Your task to perform on an android device: Open Yahoo.com Image 0: 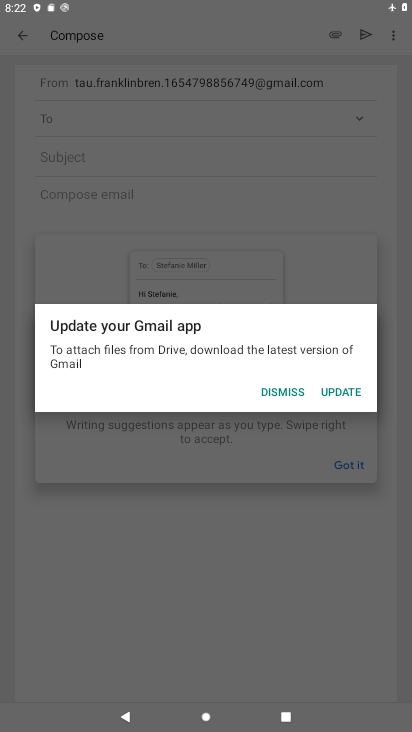
Step 0: press home button
Your task to perform on an android device: Open Yahoo.com Image 1: 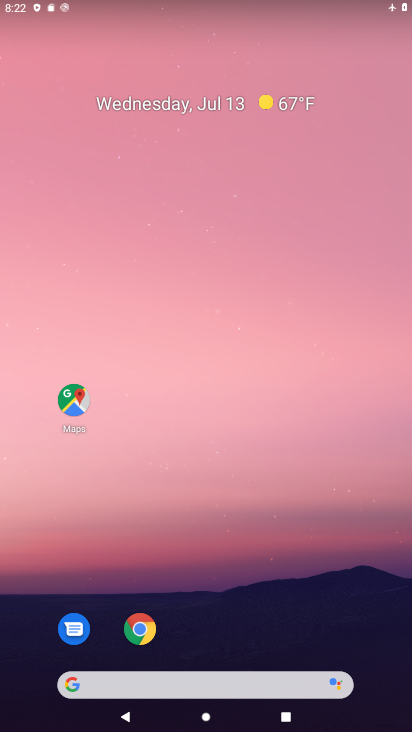
Step 1: click (136, 627)
Your task to perform on an android device: Open Yahoo.com Image 2: 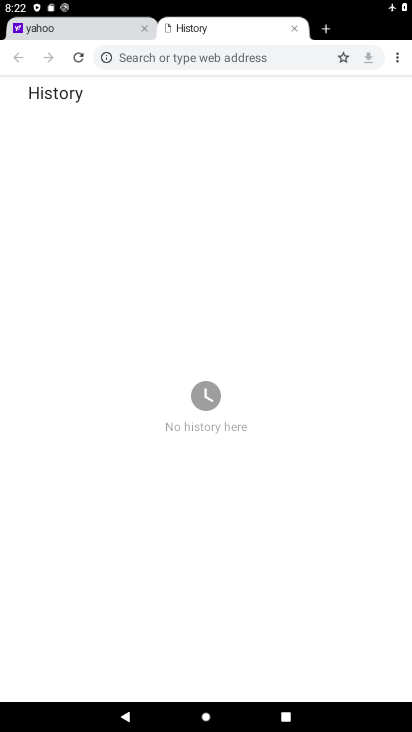
Step 2: click (64, 28)
Your task to perform on an android device: Open Yahoo.com Image 3: 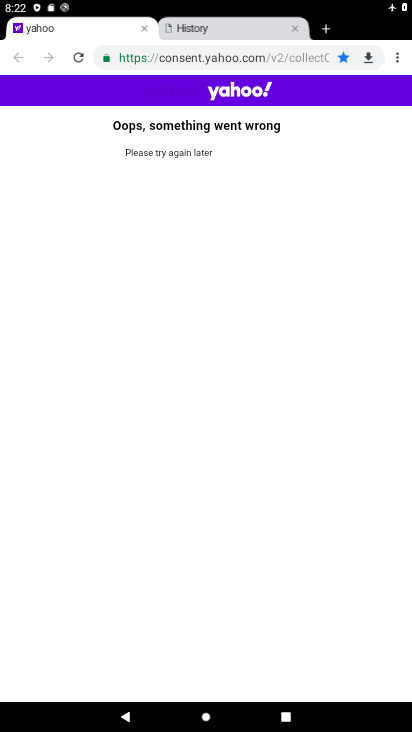
Step 3: click (79, 57)
Your task to perform on an android device: Open Yahoo.com Image 4: 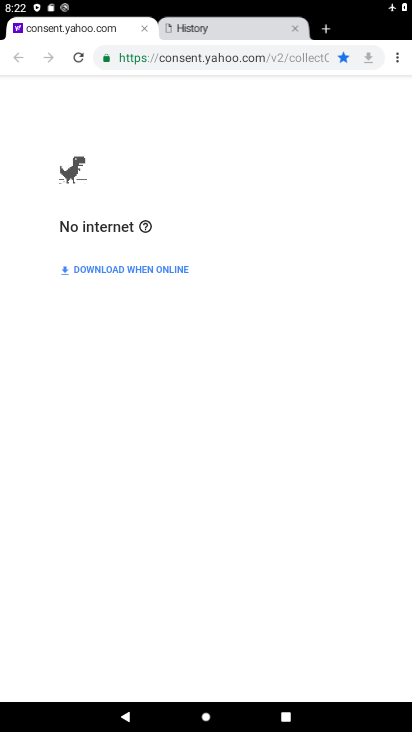
Step 4: task complete